Your task to perform on an android device: open a bookmark in the chrome app Image 0: 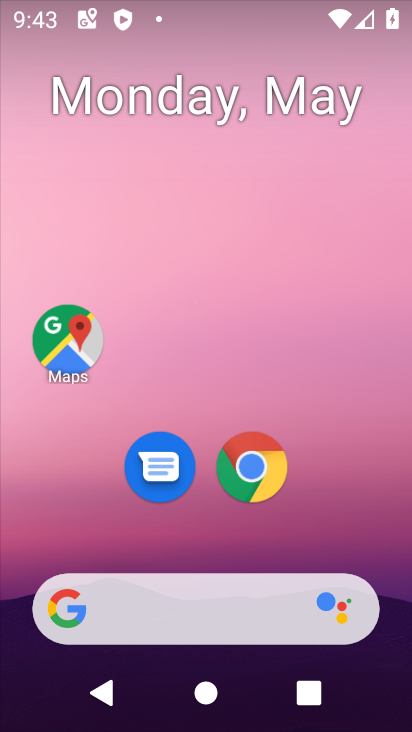
Step 0: click (253, 469)
Your task to perform on an android device: open a bookmark in the chrome app Image 1: 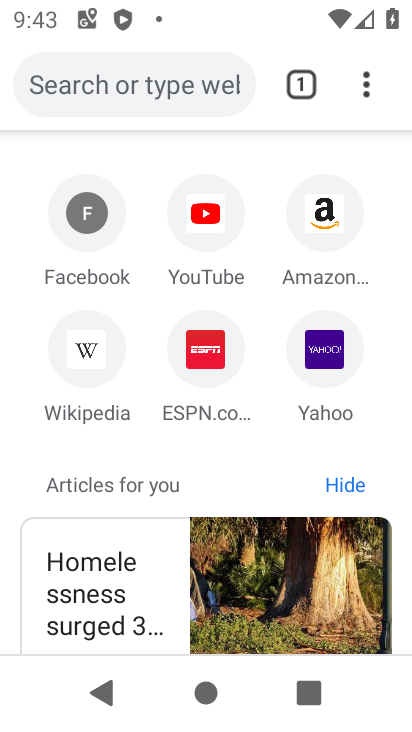
Step 1: click (362, 90)
Your task to perform on an android device: open a bookmark in the chrome app Image 2: 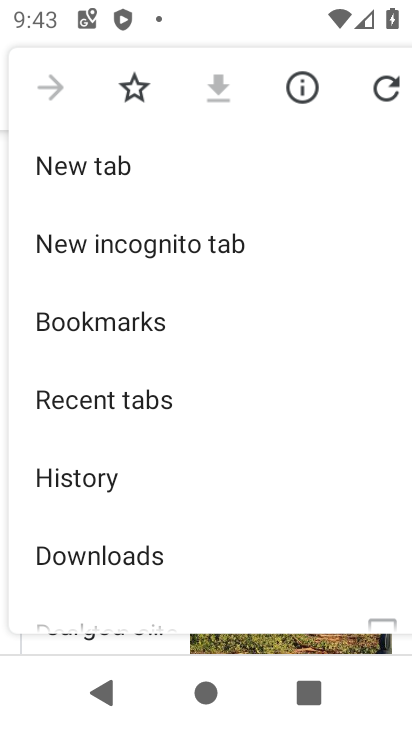
Step 2: click (73, 321)
Your task to perform on an android device: open a bookmark in the chrome app Image 3: 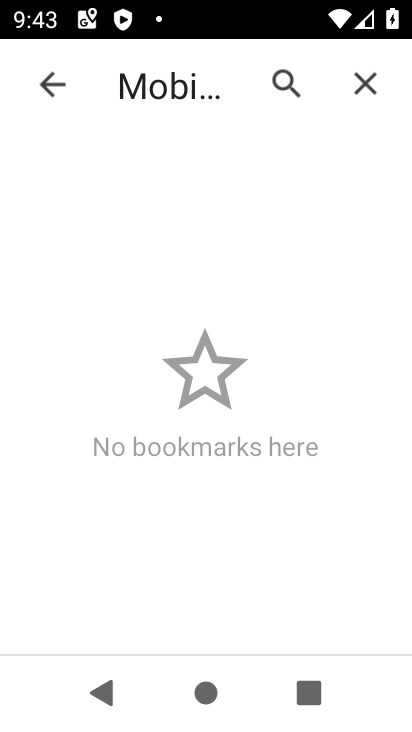
Step 3: task complete